Your task to perform on an android device: Do I have any events tomorrow? Image 0: 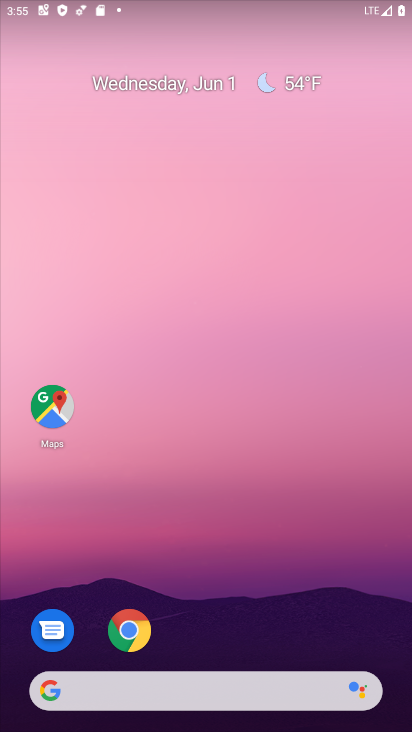
Step 0: drag from (337, 510) to (257, 14)
Your task to perform on an android device: Do I have any events tomorrow? Image 1: 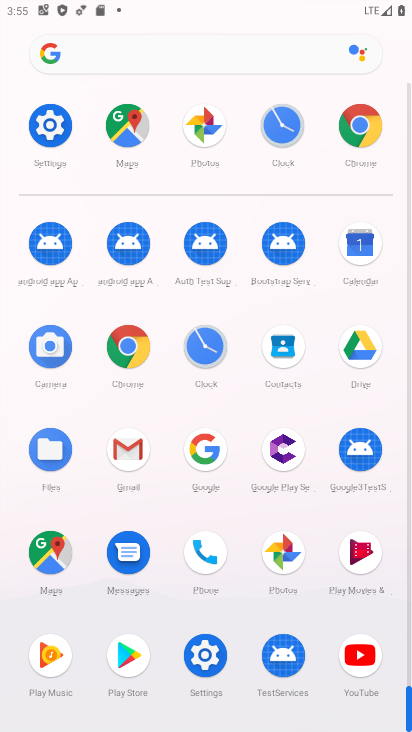
Step 1: drag from (13, 627) to (17, 211)
Your task to perform on an android device: Do I have any events tomorrow? Image 2: 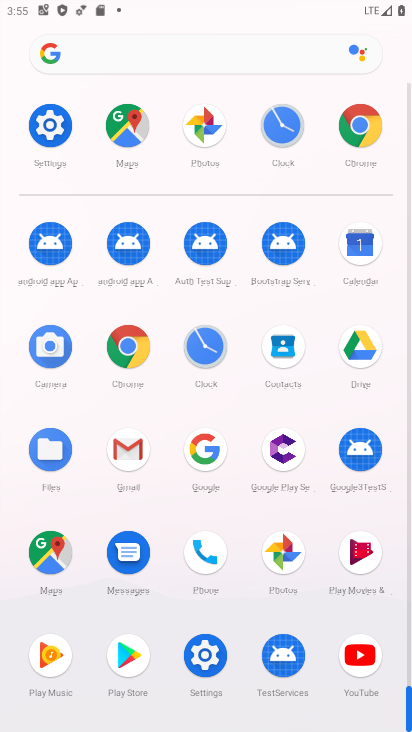
Step 2: drag from (21, 533) to (18, 193)
Your task to perform on an android device: Do I have any events tomorrow? Image 3: 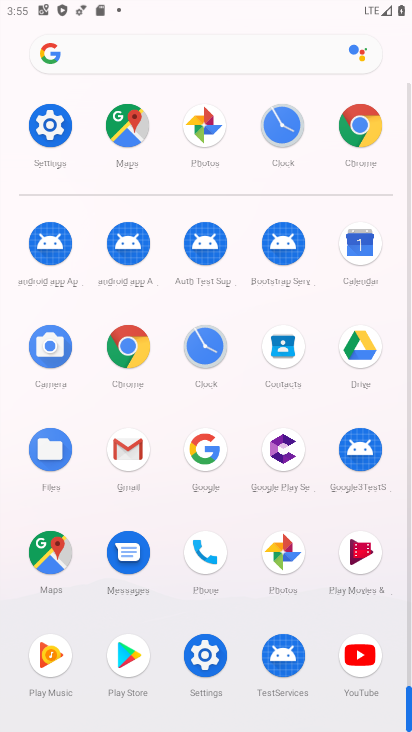
Step 3: click (359, 242)
Your task to perform on an android device: Do I have any events tomorrow? Image 4: 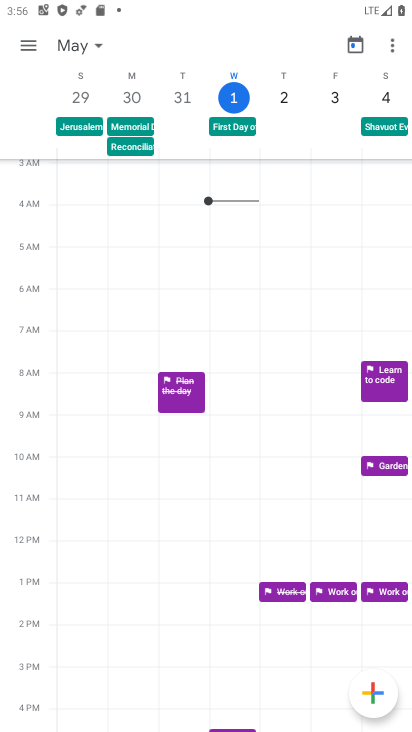
Step 4: click (286, 88)
Your task to perform on an android device: Do I have any events tomorrow? Image 5: 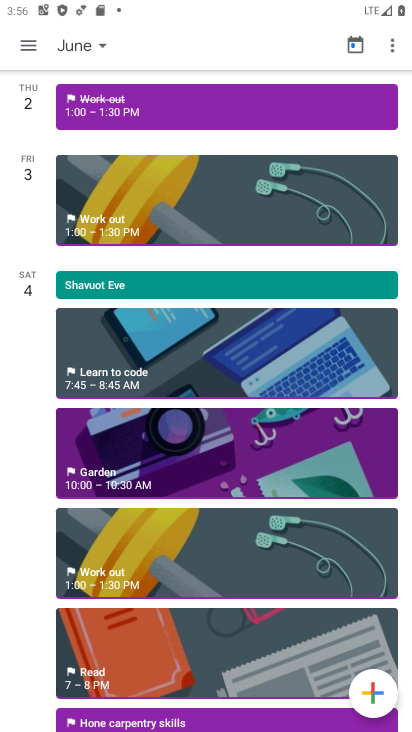
Step 5: task complete